Your task to perform on an android device: check data usage Image 0: 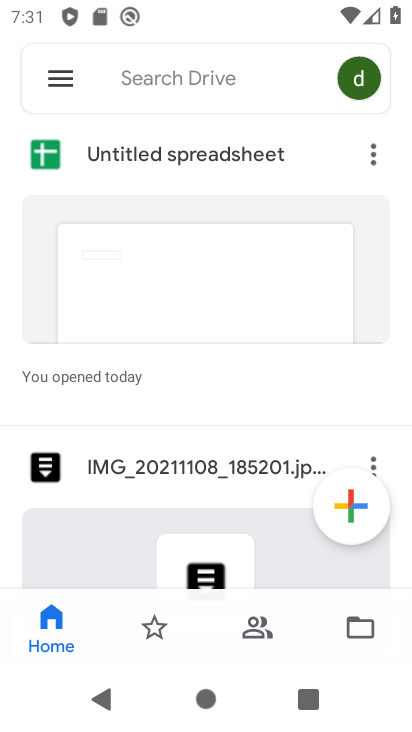
Step 0: press home button
Your task to perform on an android device: check data usage Image 1: 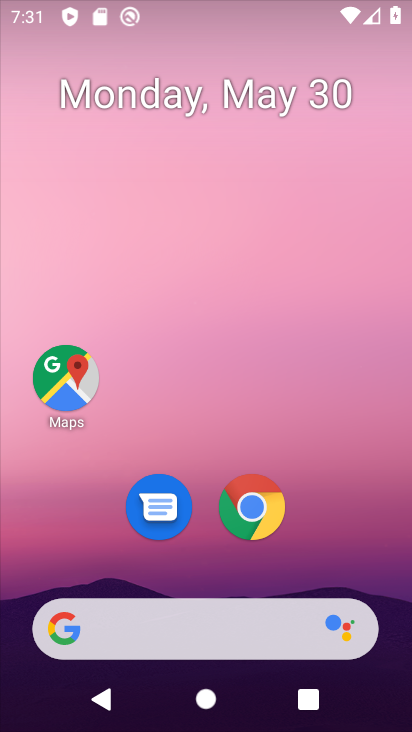
Step 1: drag from (361, 544) to (325, 190)
Your task to perform on an android device: check data usage Image 2: 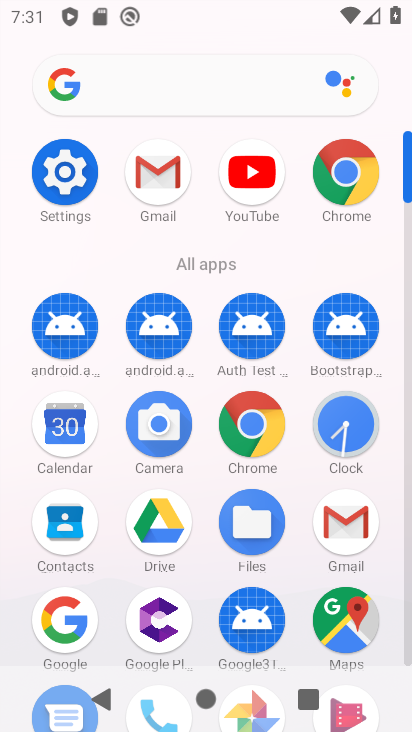
Step 2: click (70, 184)
Your task to perform on an android device: check data usage Image 3: 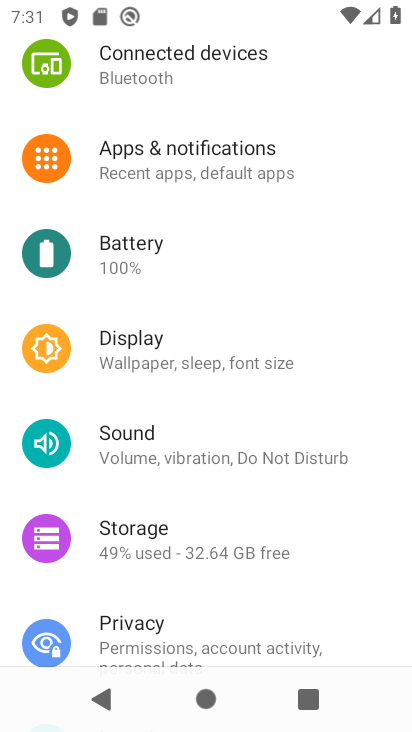
Step 3: drag from (299, 132) to (352, 482)
Your task to perform on an android device: check data usage Image 4: 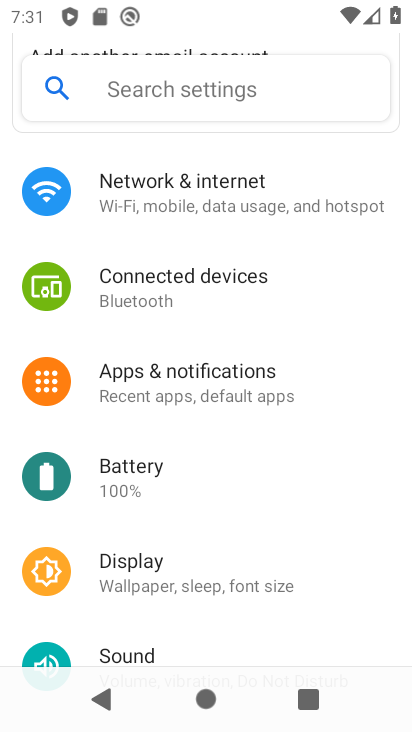
Step 4: click (250, 204)
Your task to perform on an android device: check data usage Image 5: 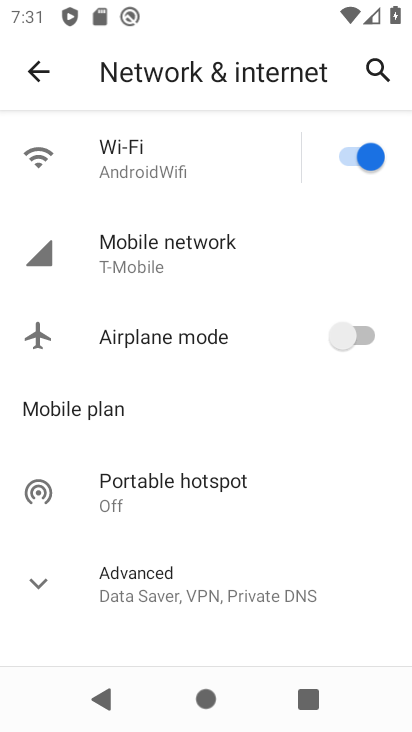
Step 5: click (197, 258)
Your task to perform on an android device: check data usage Image 6: 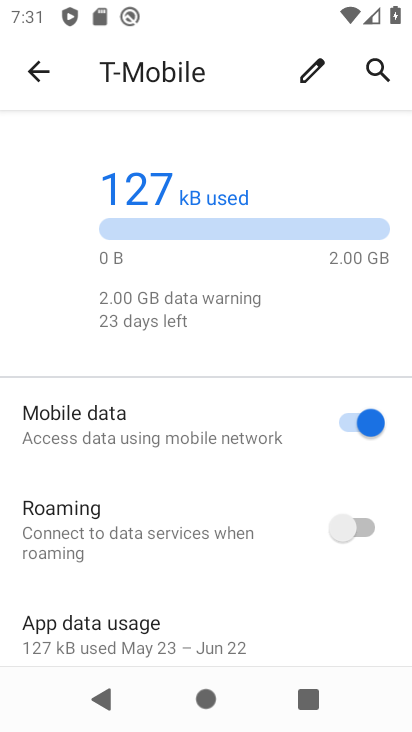
Step 6: drag from (174, 452) to (203, 246)
Your task to perform on an android device: check data usage Image 7: 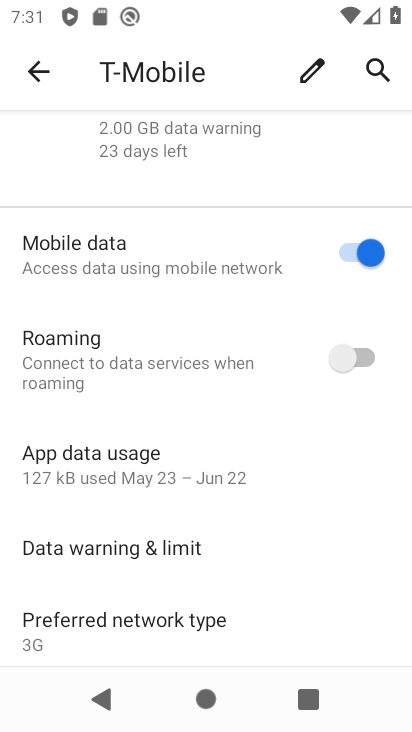
Step 7: click (153, 480)
Your task to perform on an android device: check data usage Image 8: 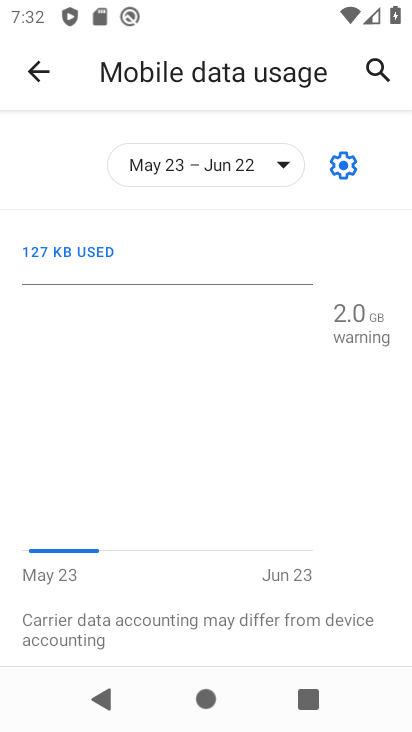
Step 8: task complete